Your task to perform on an android device: clear history in the chrome app Image 0: 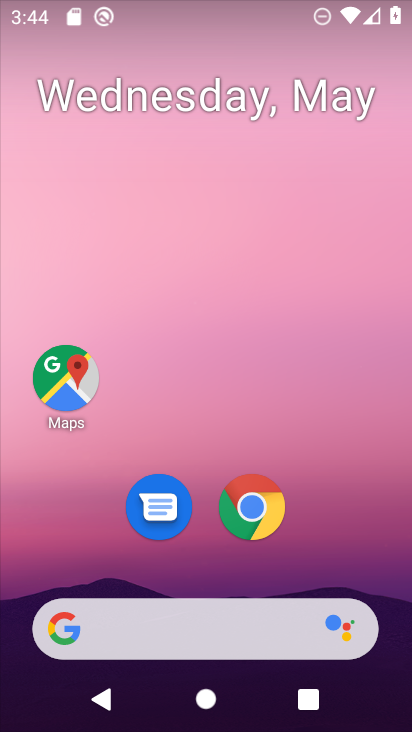
Step 0: click (252, 513)
Your task to perform on an android device: clear history in the chrome app Image 1: 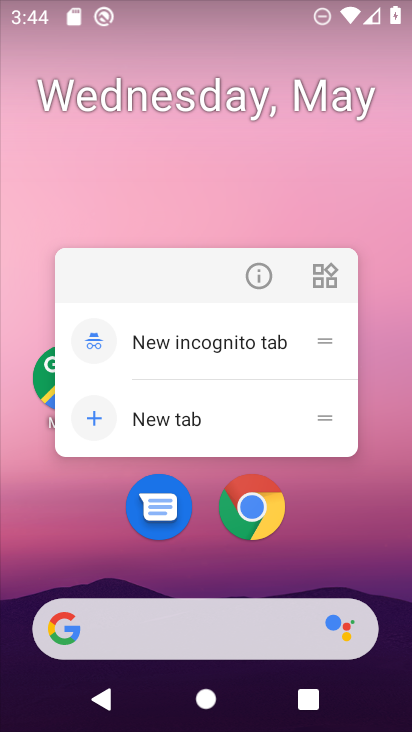
Step 1: click (253, 491)
Your task to perform on an android device: clear history in the chrome app Image 2: 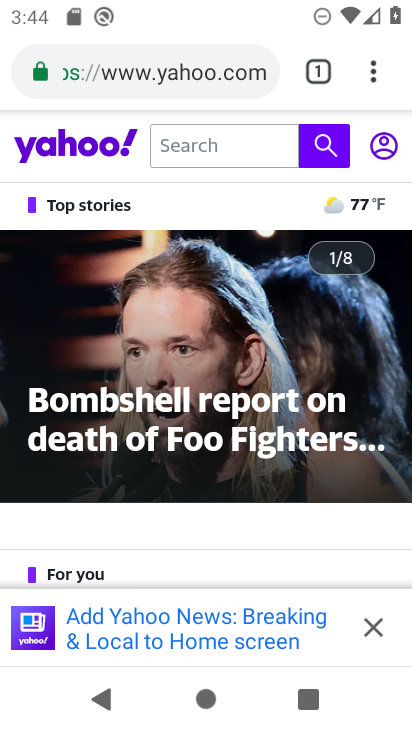
Step 2: drag from (377, 60) to (117, 411)
Your task to perform on an android device: clear history in the chrome app Image 3: 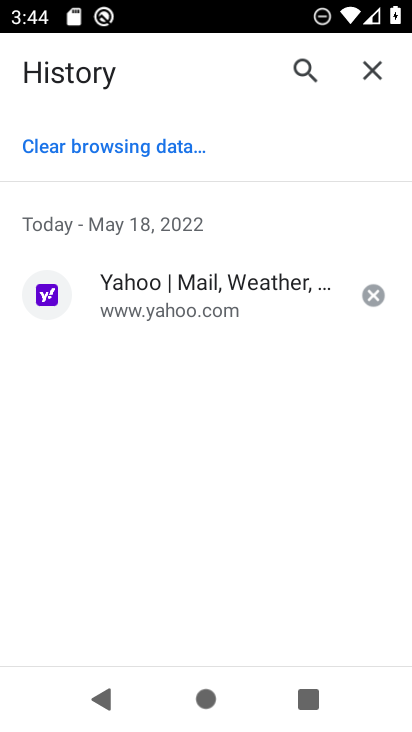
Step 3: click (93, 136)
Your task to perform on an android device: clear history in the chrome app Image 4: 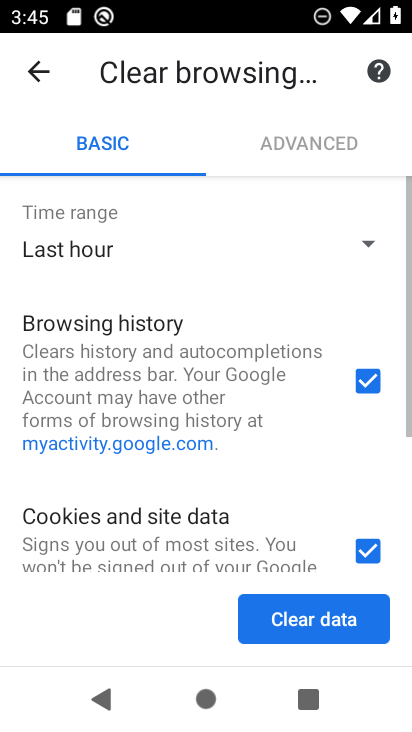
Step 4: click (294, 608)
Your task to perform on an android device: clear history in the chrome app Image 5: 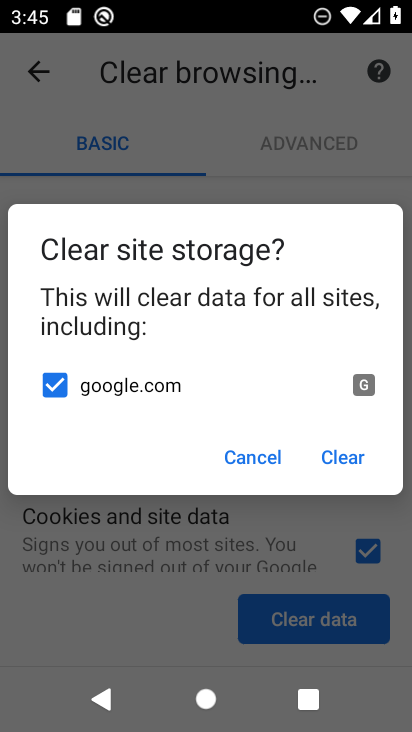
Step 5: click (359, 447)
Your task to perform on an android device: clear history in the chrome app Image 6: 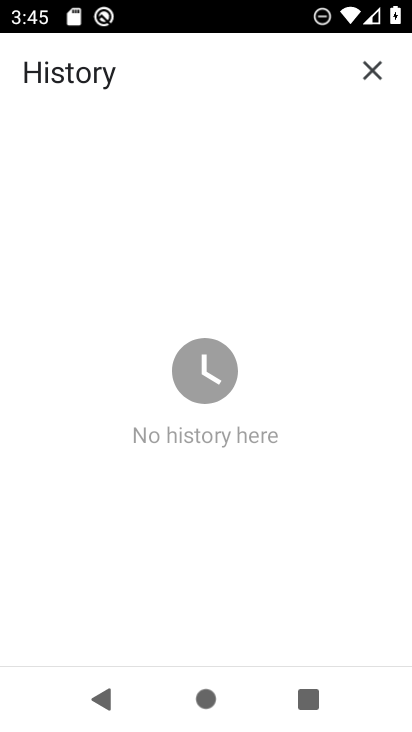
Step 6: task complete